Your task to perform on an android device: Is it going to rain this weekend? Image 0: 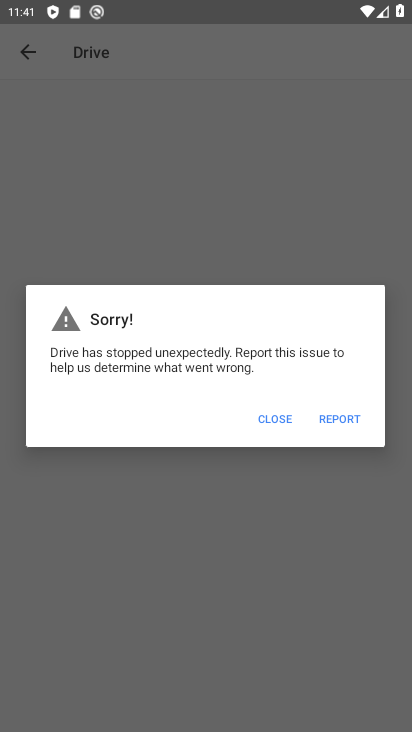
Step 0: press home button
Your task to perform on an android device: Is it going to rain this weekend? Image 1: 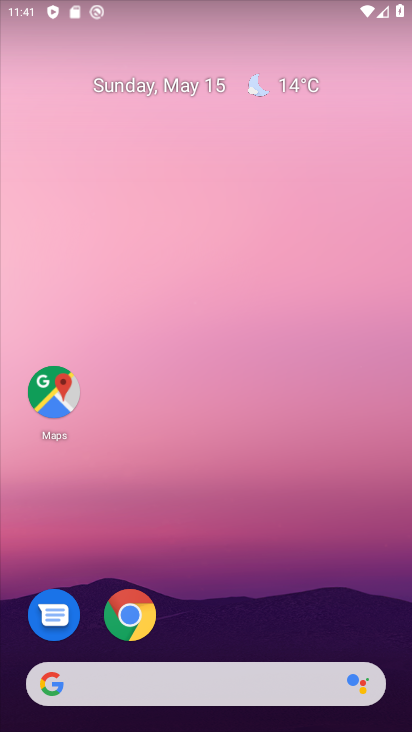
Step 1: drag from (223, 571) to (218, 90)
Your task to perform on an android device: Is it going to rain this weekend? Image 2: 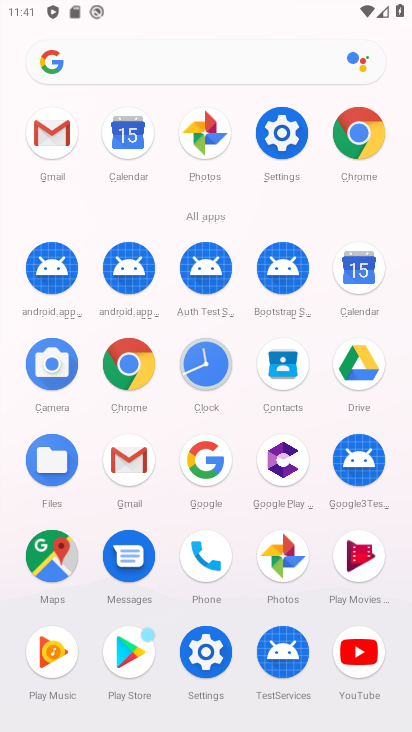
Step 2: press home button
Your task to perform on an android device: Is it going to rain this weekend? Image 3: 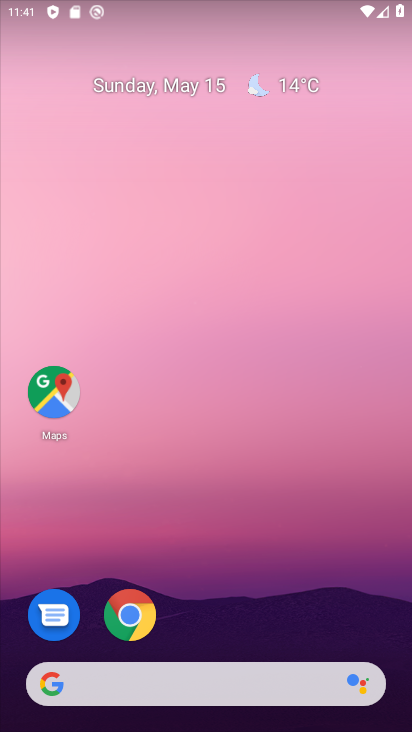
Step 3: drag from (294, 520) to (267, 429)
Your task to perform on an android device: Is it going to rain this weekend? Image 4: 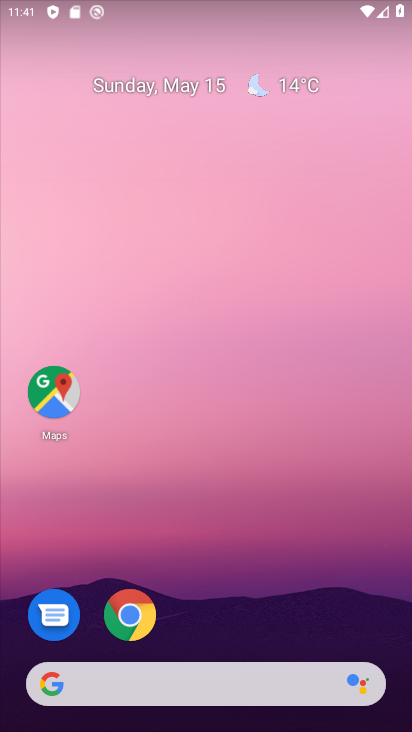
Step 4: drag from (273, 271) to (266, 360)
Your task to perform on an android device: Is it going to rain this weekend? Image 5: 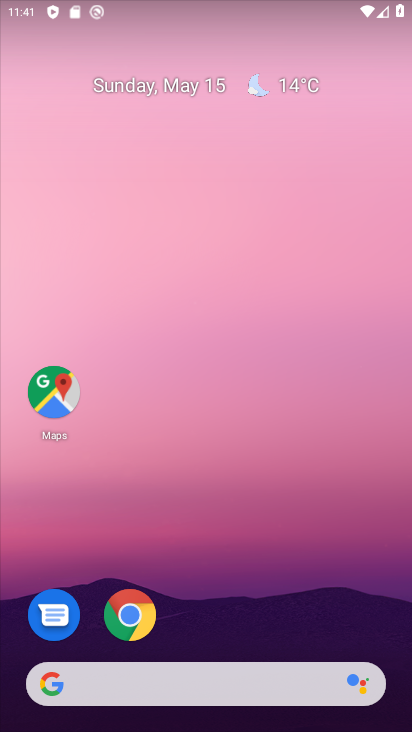
Step 5: click (291, 89)
Your task to perform on an android device: Is it going to rain this weekend? Image 6: 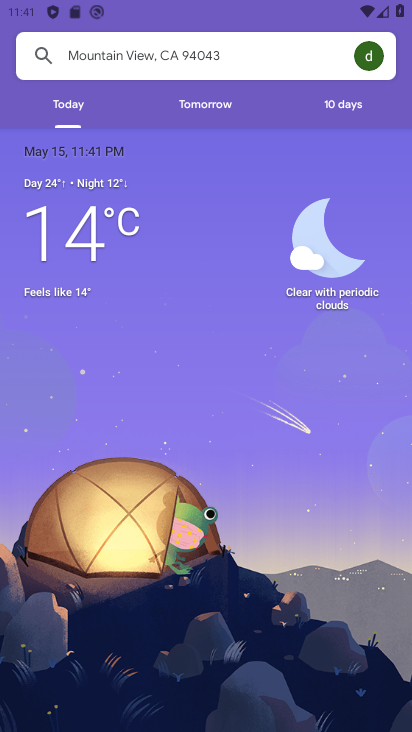
Step 6: task complete